Your task to perform on an android device: open app "Paramount+ | Peak Streaming" (install if not already installed) and enter user name: "fostered@yahoo.com" and password: "strong" Image 0: 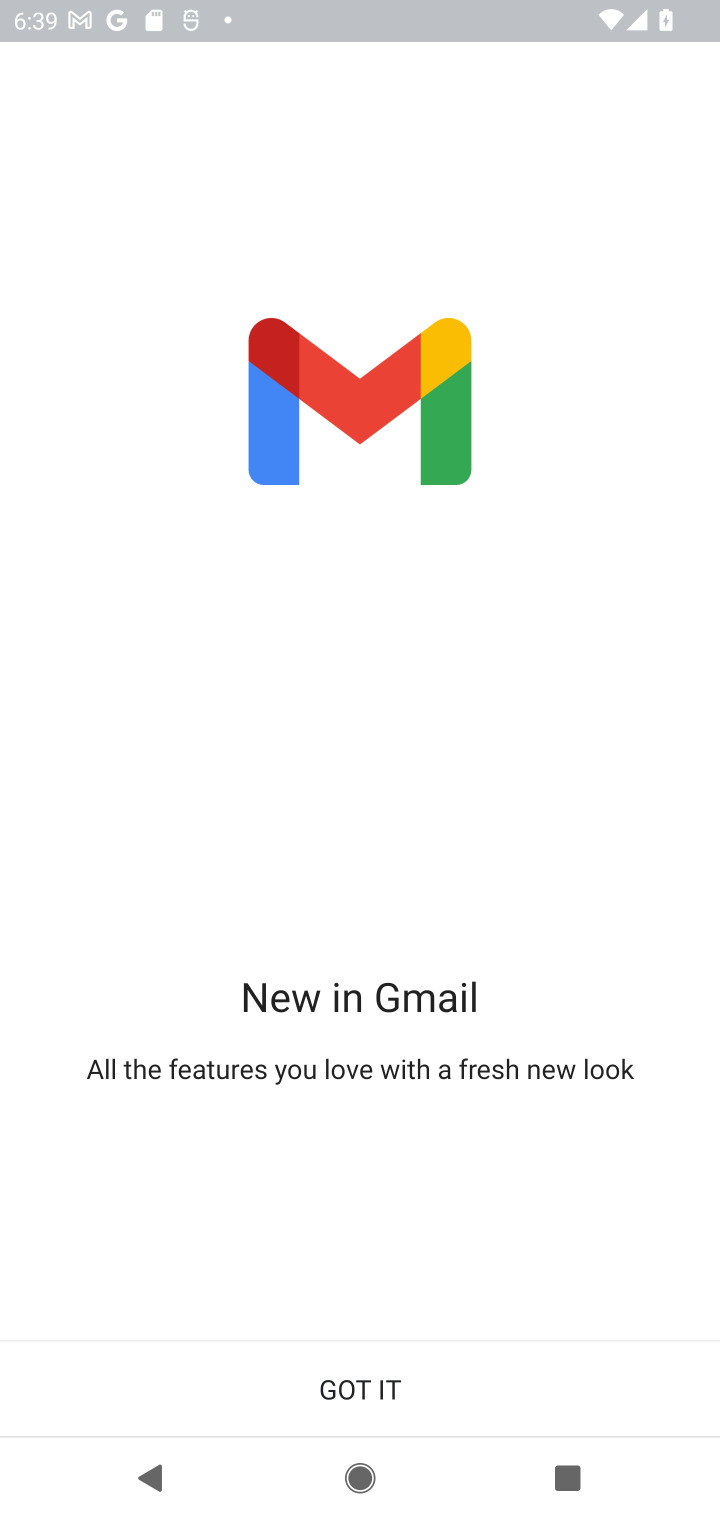
Step 0: press home button
Your task to perform on an android device: open app "Paramount+ | Peak Streaming" (install if not already installed) and enter user name: "fostered@yahoo.com" and password: "strong" Image 1: 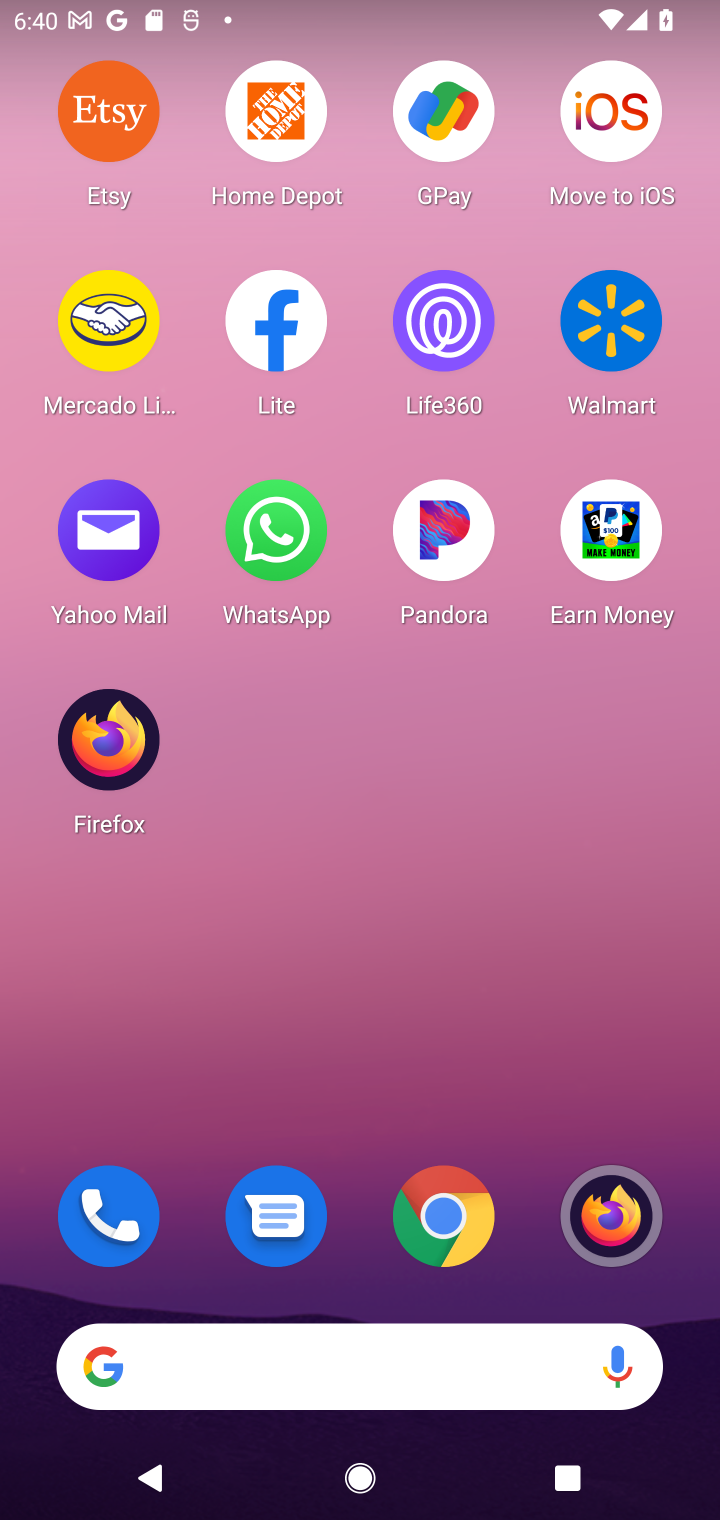
Step 1: drag from (527, 1263) to (492, 615)
Your task to perform on an android device: open app "Paramount+ | Peak Streaming" (install if not already installed) and enter user name: "fostered@yahoo.com" and password: "strong" Image 2: 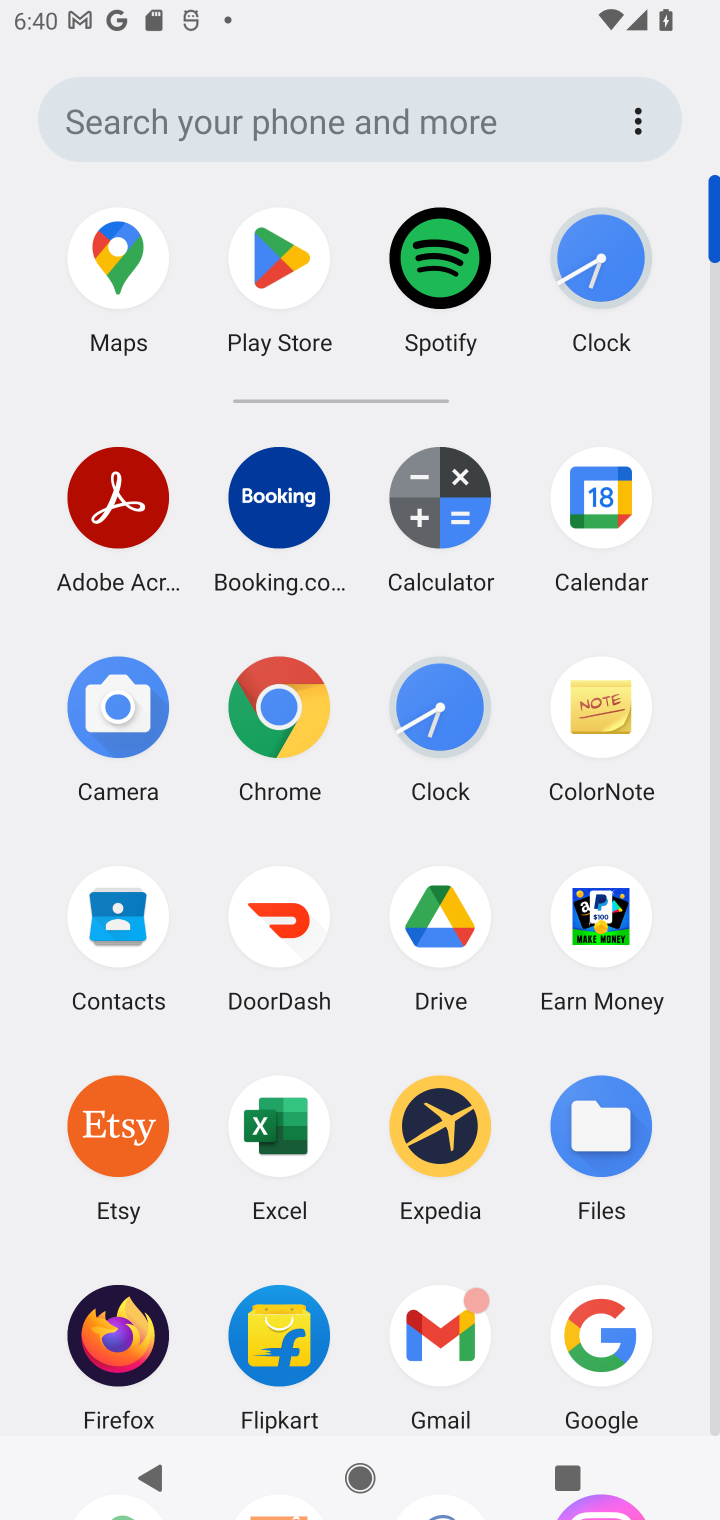
Step 2: drag from (695, 1351) to (669, 626)
Your task to perform on an android device: open app "Paramount+ | Peak Streaming" (install if not already installed) and enter user name: "fostered@yahoo.com" and password: "strong" Image 3: 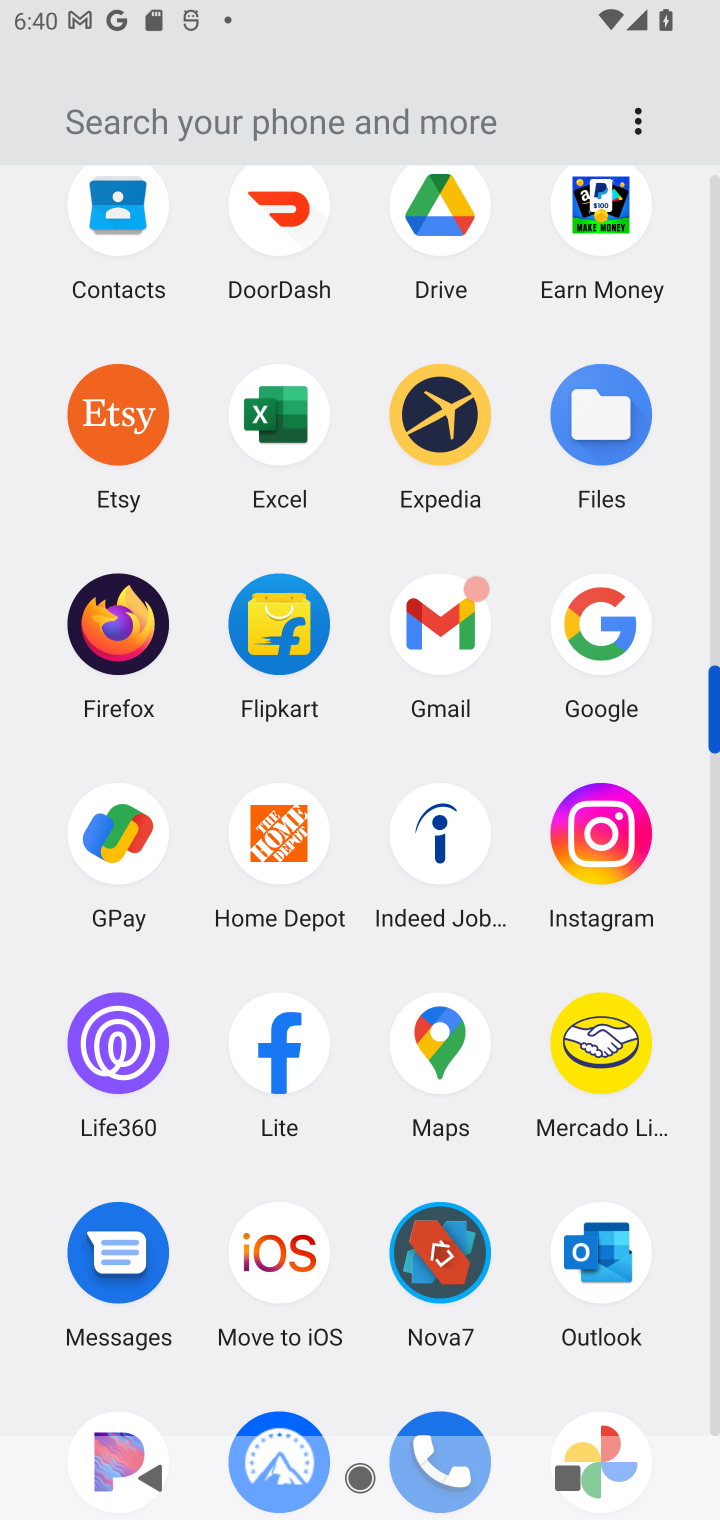
Step 3: drag from (697, 1313) to (663, 648)
Your task to perform on an android device: open app "Paramount+ | Peak Streaming" (install if not already installed) and enter user name: "fostered@yahoo.com" and password: "strong" Image 4: 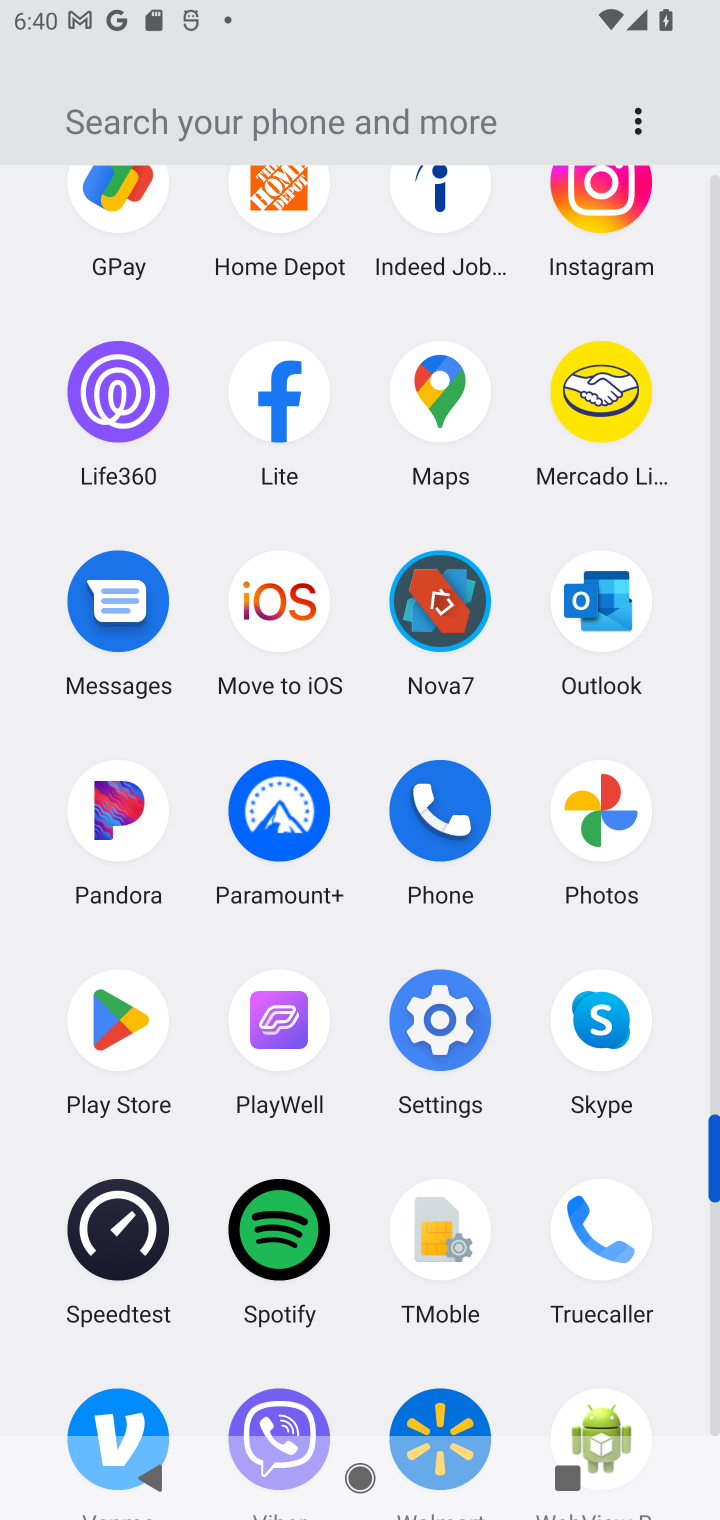
Step 4: click (115, 1017)
Your task to perform on an android device: open app "Paramount+ | Peak Streaming" (install if not already installed) and enter user name: "fostered@yahoo.com" and password: "strong" Image 5: 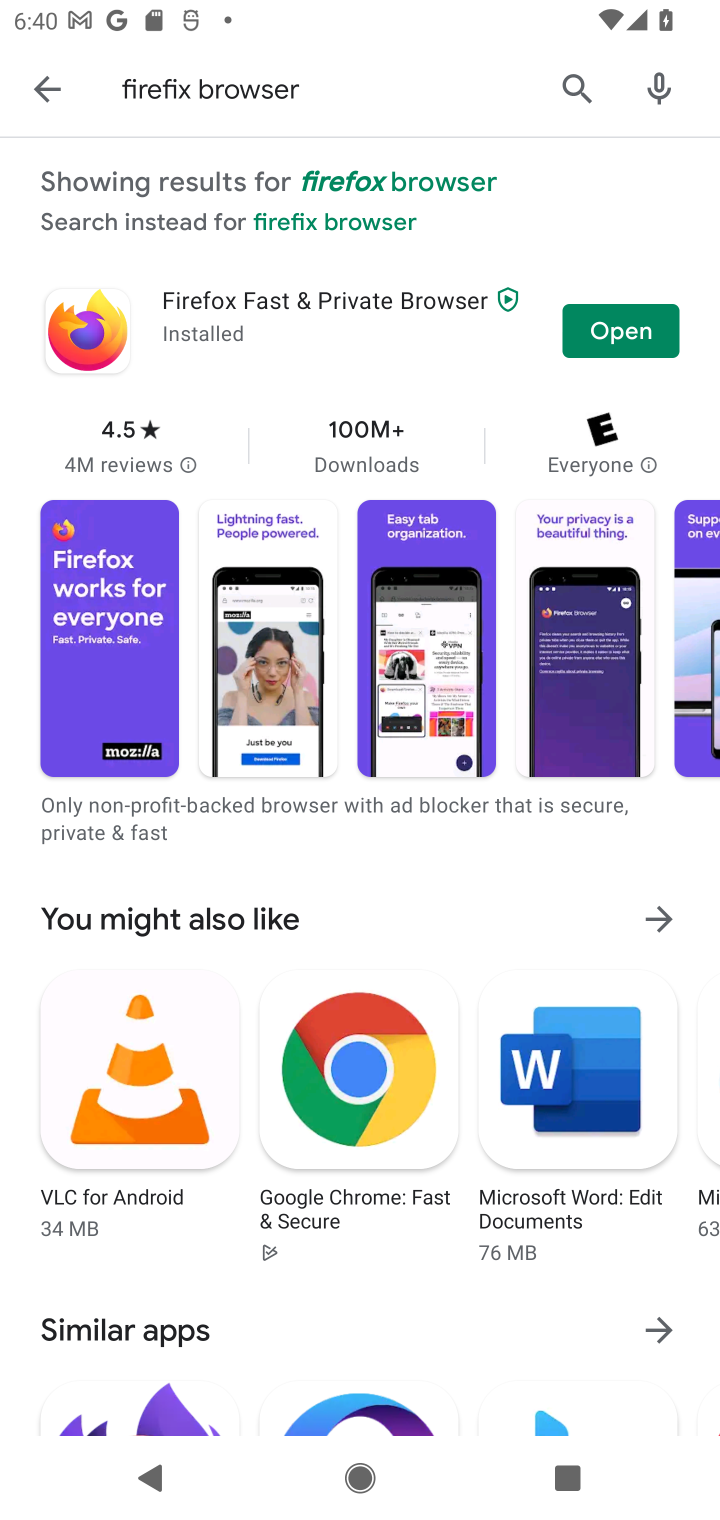
Step 5: click (571, 78)
Your task to perform on an android device: open app "Paramount+ | Peak Streaming" (install if not already installed) and enter user name: "fostered@yahoo.com" and password: "strong" Image 6: 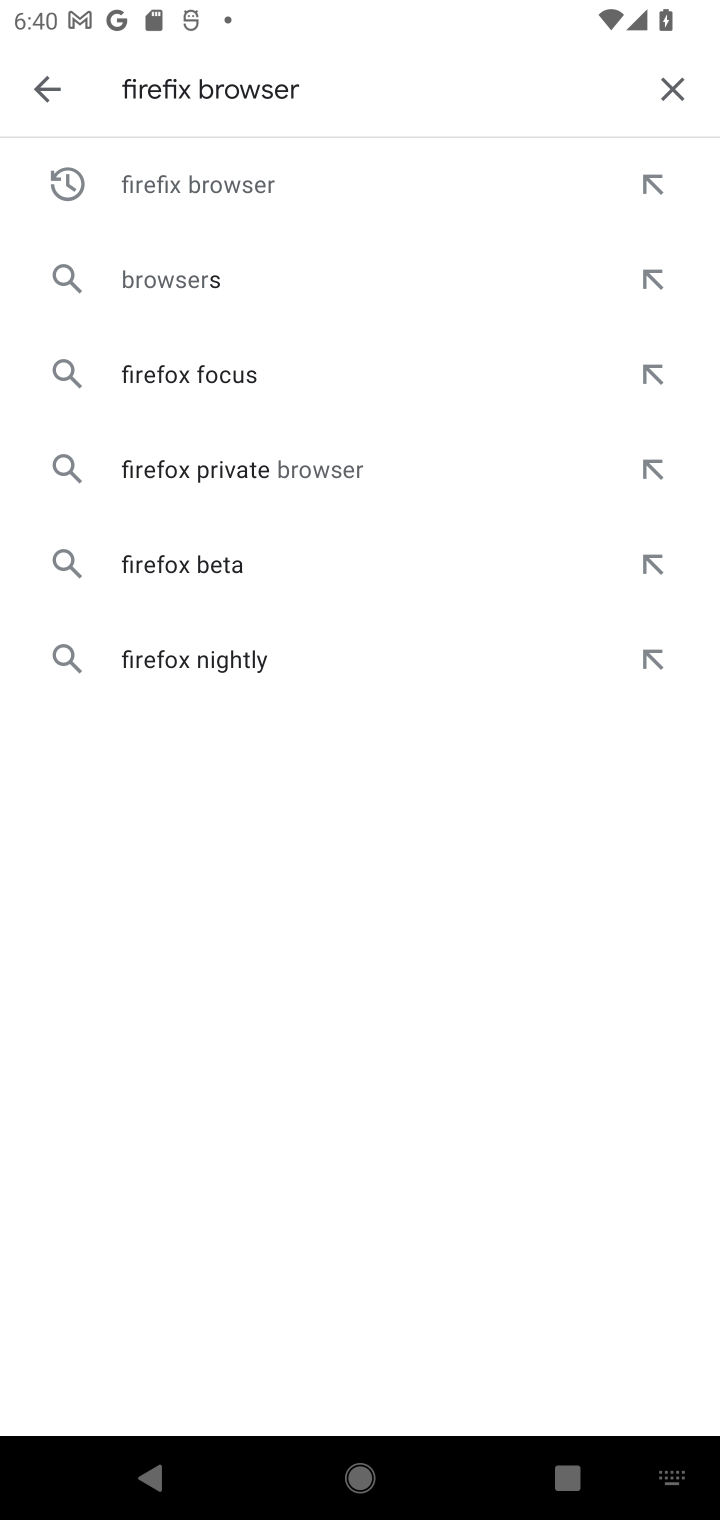
Step 6: click (670, 89)
Your task to perform on an android device: open app "Paramount+ | Peak Streaming" (install if not already installed) and enter user name: "fostered@yahoo.com" and password: "strong" Image 7: 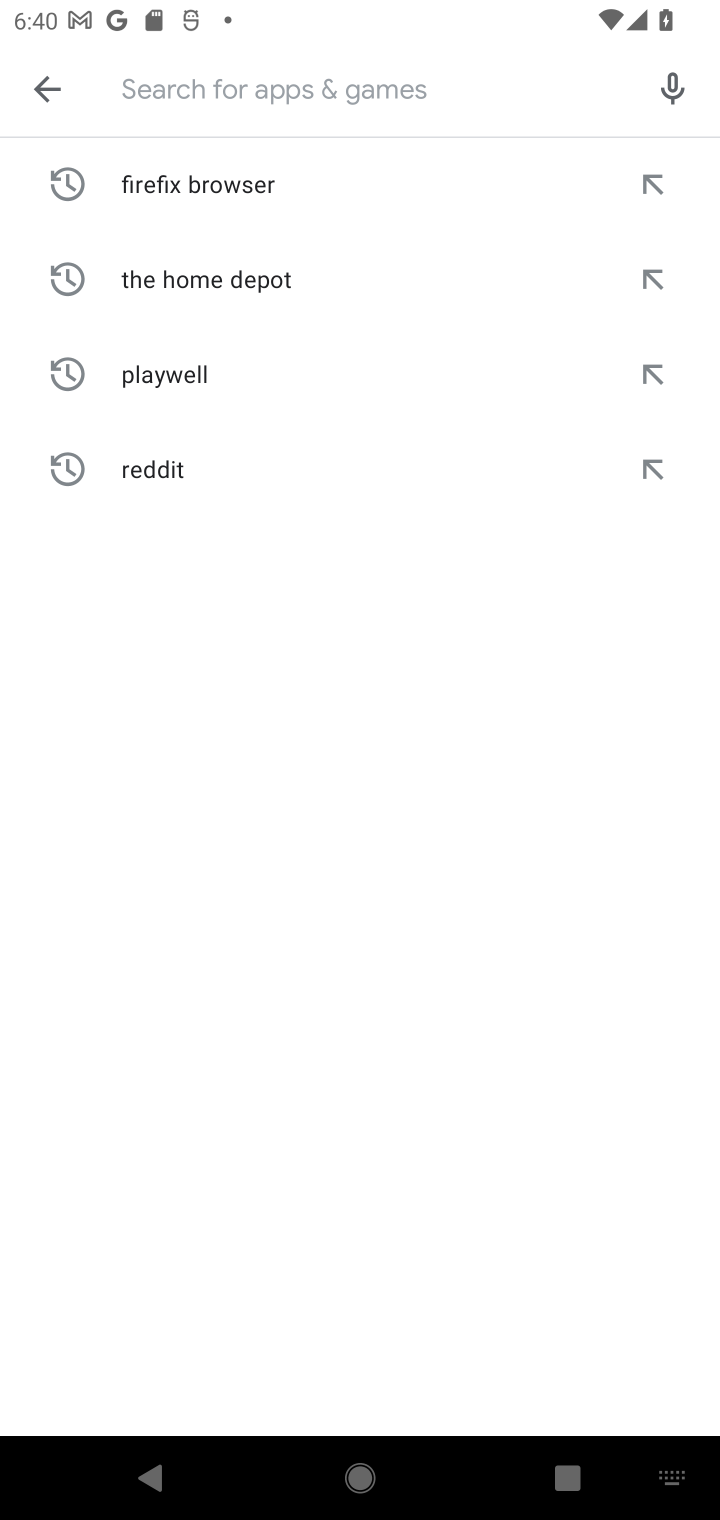
Step 7: type "Paramount+ | Peak Streaming"
Your task to perform on an android device: open app "Paramount+ | Peak Streaming" (install if not already installed) and enter user name: "fostered@yahoo.com" and password: "strong" Image 8: 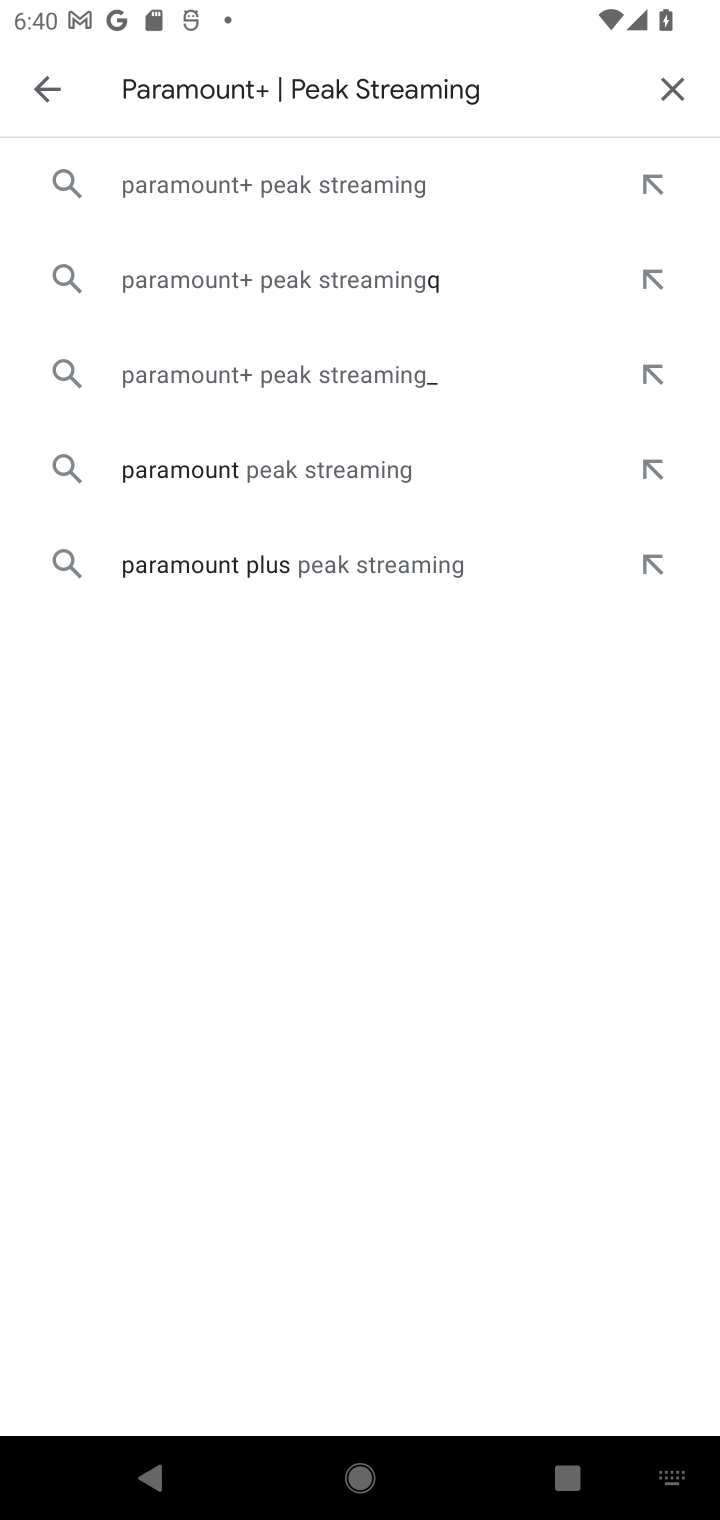
Step 8: click (239, 178)
Your task to perform on an android device: open app "Paramount+ | Peak Streaming" (install if not already installed) and enter user name: "fostered@yahoo.com" and password: "strong" Image 9: 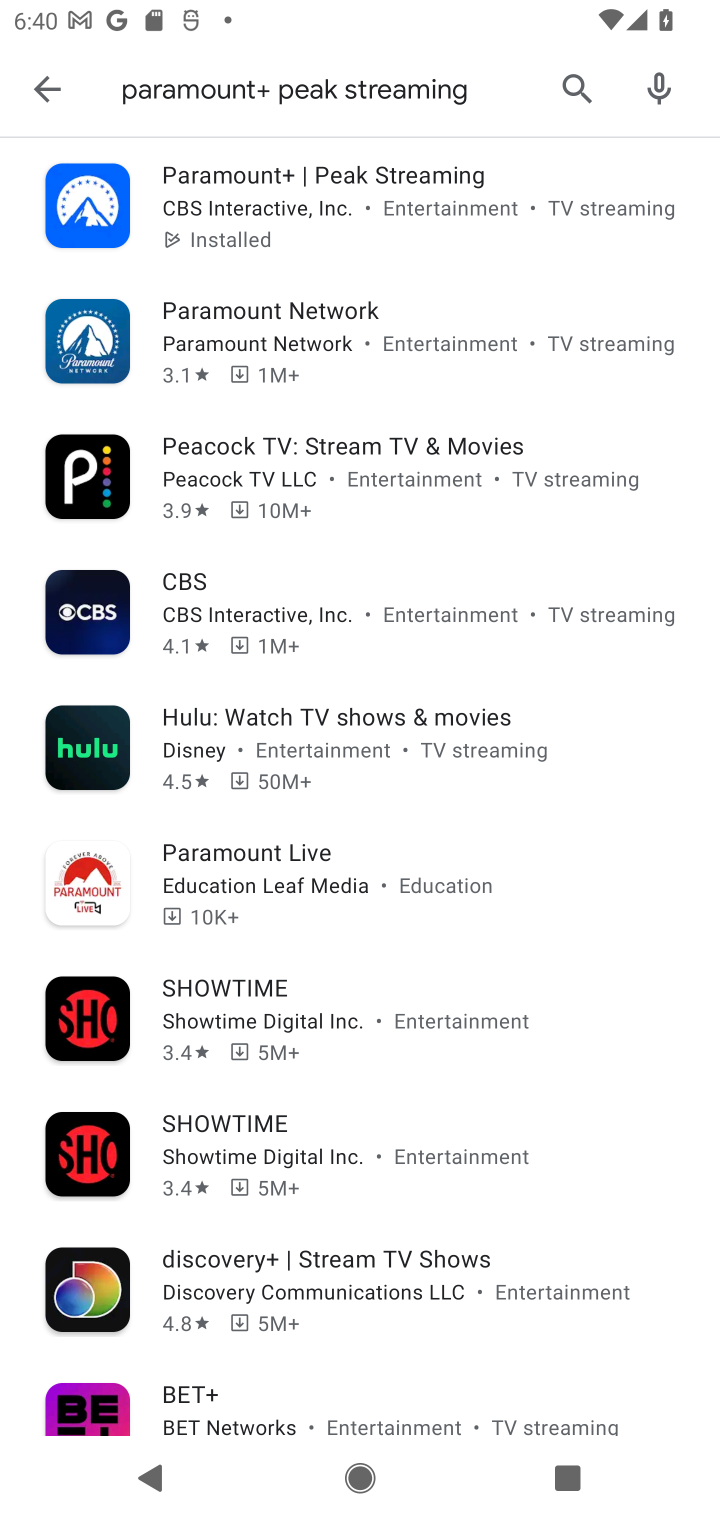
Step 9: click (267, 193)
Your task to perform on an android device: open app "Paramount+ | Peak Streaming" (install if not already installed) and enter user name: "fostered@yahoo.com" and password: "strong" Image 10: 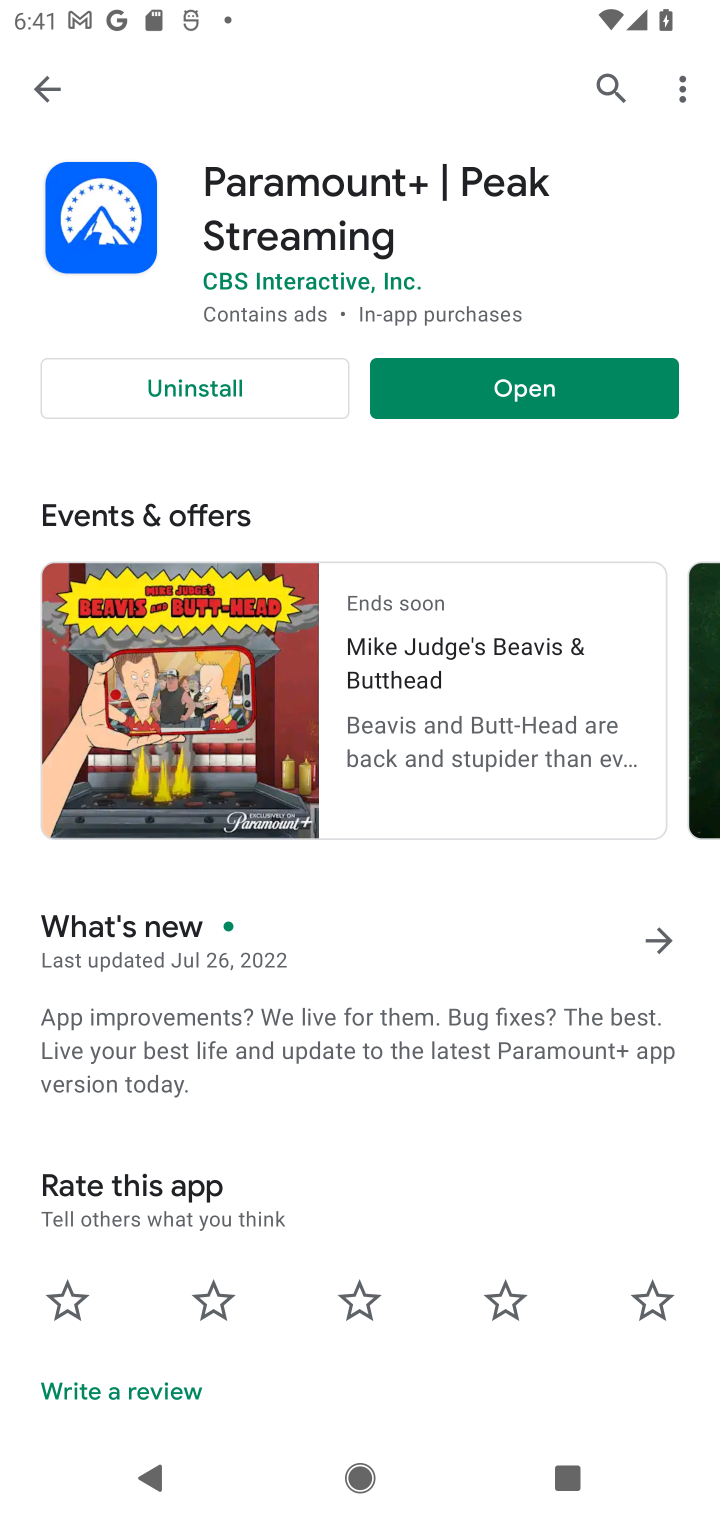
Step 10: click (526, 389)
Your task to perform on an android device: open app "Paramount+ | Peak Streaming" (install if not already installed) and enter user name: "fostered@yahoo.com" and password: "strong" Image 11: 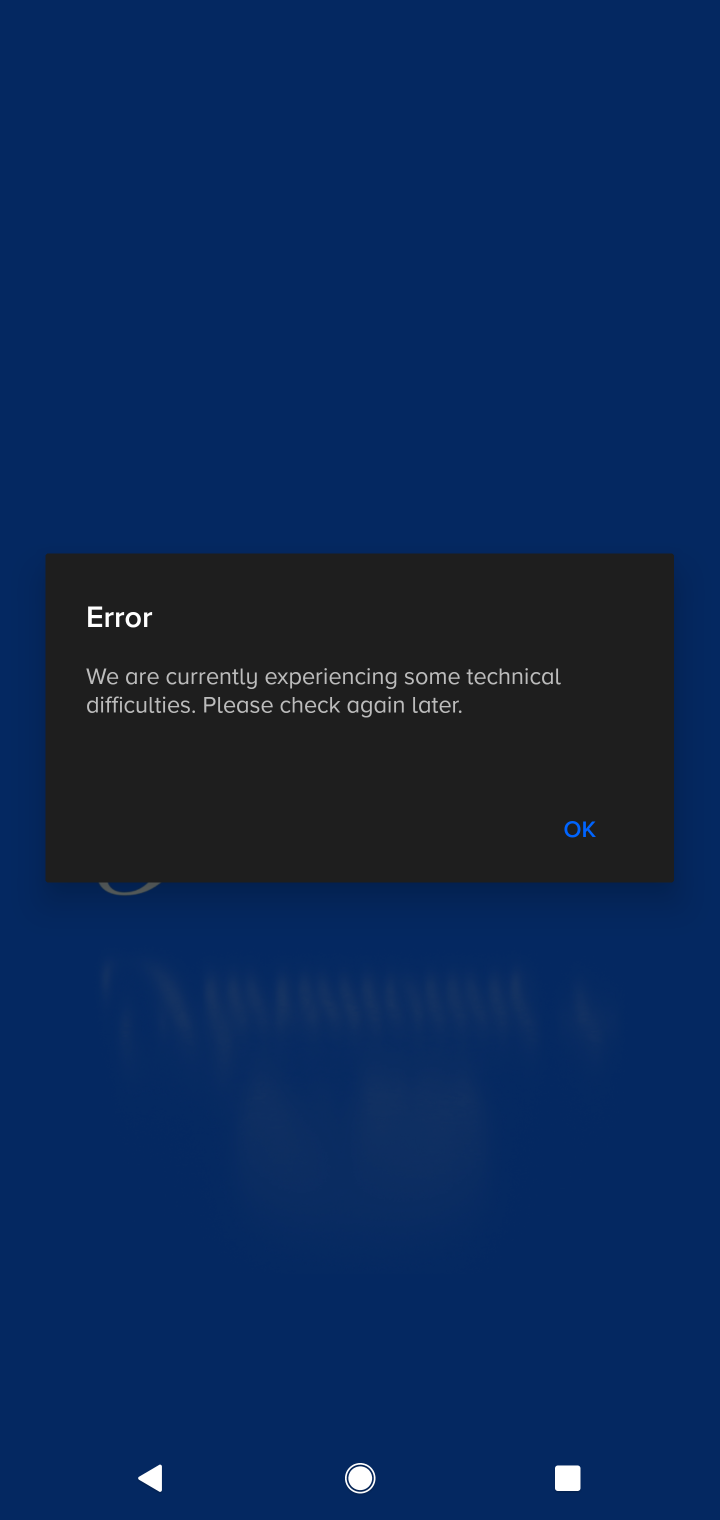
Step 11: click (581, 837)
Your task to perform on an android device: open app "Paramount+ | Peak Streaming" (install if not already installed) and enter user name: "fostered@yahoo.com" and password: "strong" Image 12: 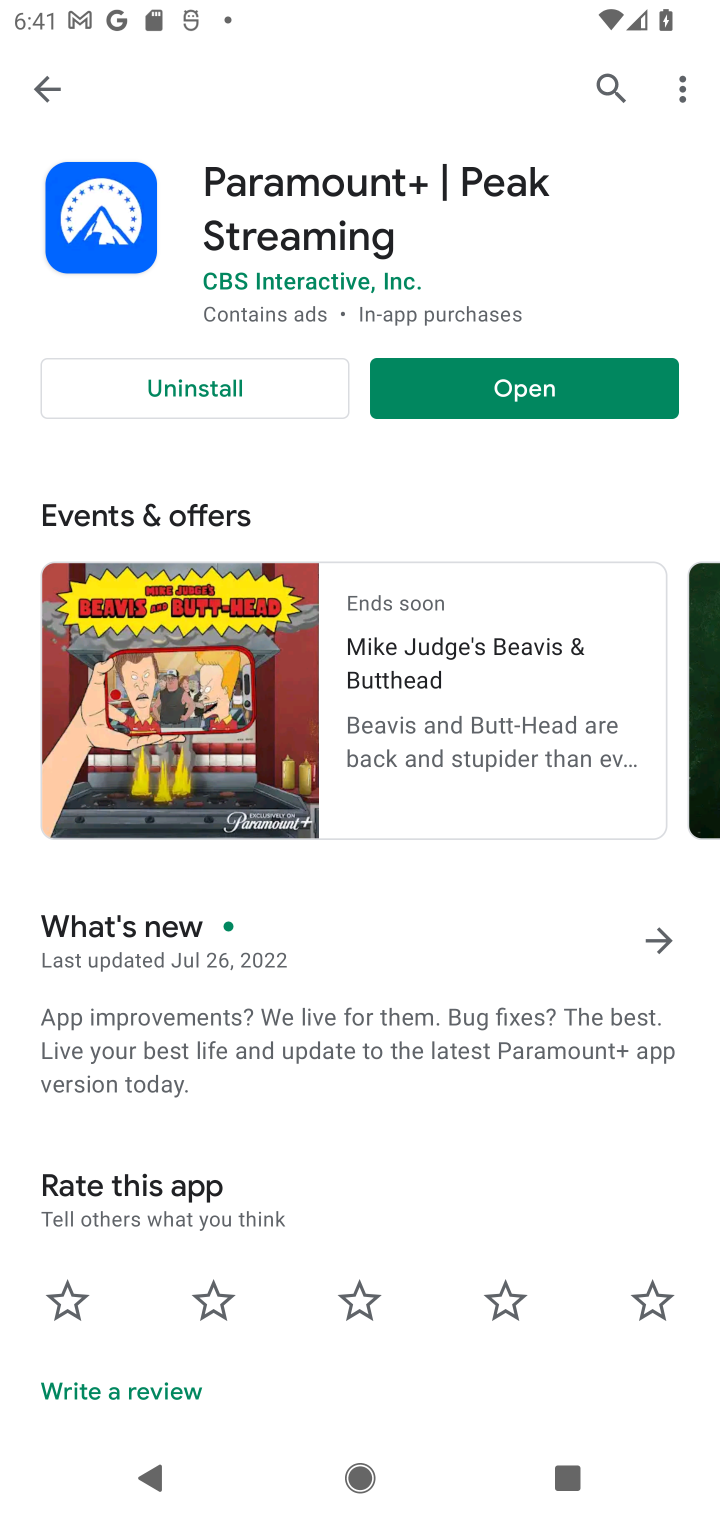
Step 12: click (517, 395)
Your task to perform on an android device: open app "Paramount+ | Peak Streaming" (install if not already installed) and enter user name: "fostered@yahoo.com" and password: "strong" Image 13: 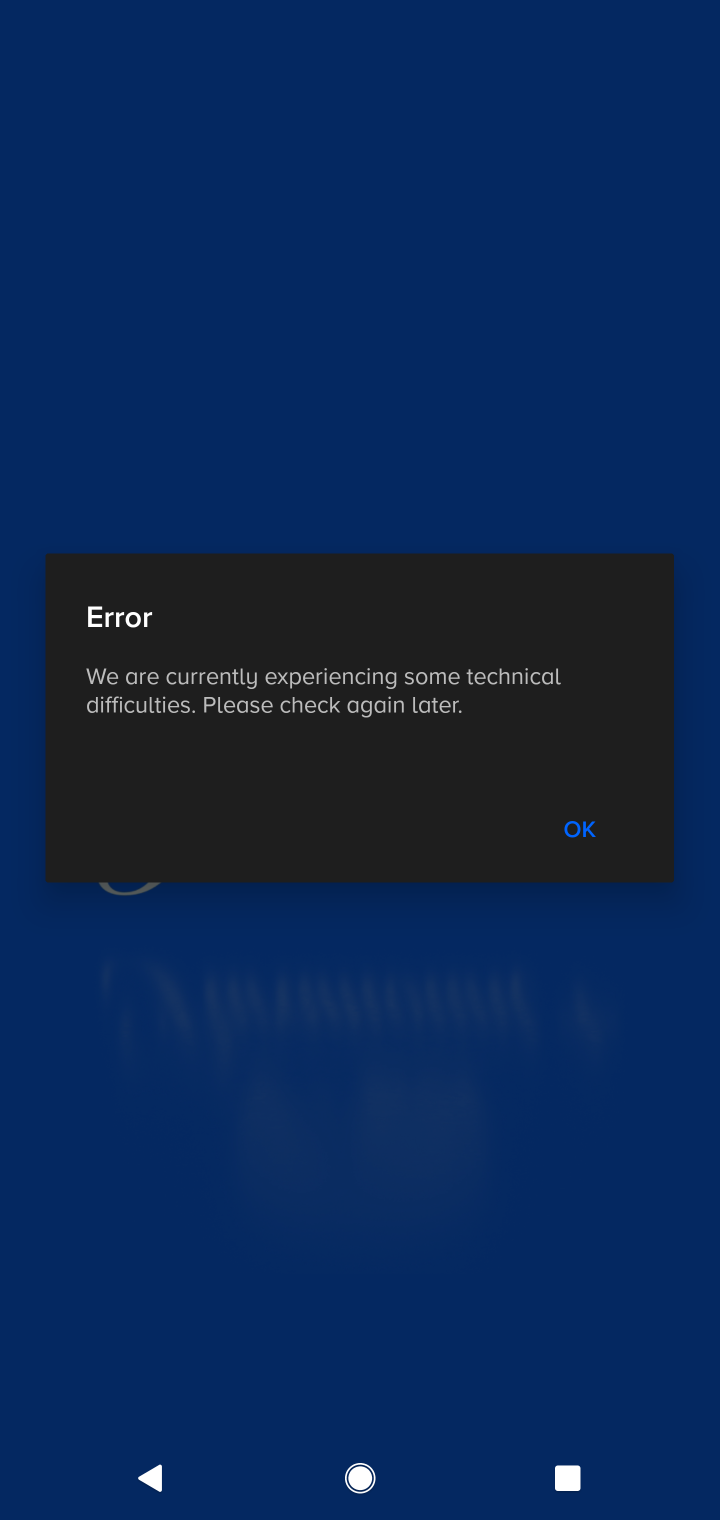
Step 13: task complete